Your task to perform on an android device: turn vacation reply on in the gmail app Image 0: 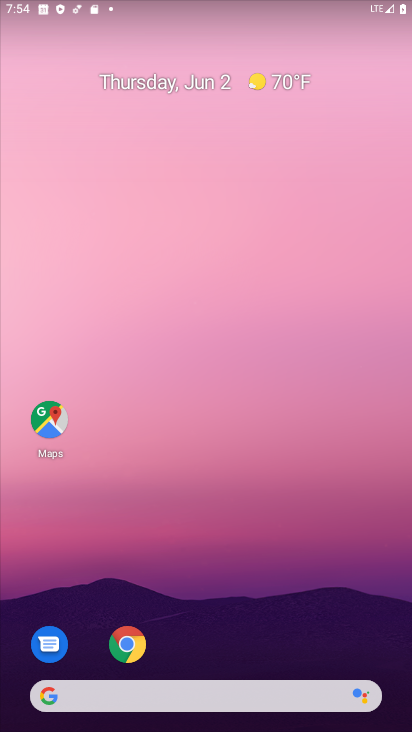
Step 0: drag from (313, 583) to (229, 43)
Your task to perform on an android device: turn vacation reply on in the gmail app Image 1: 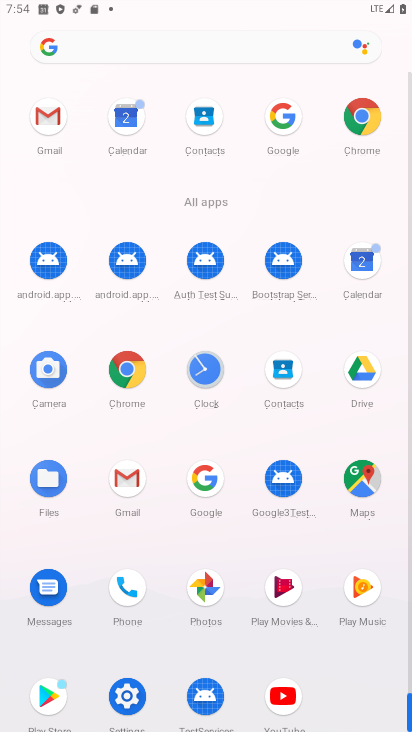
Step 1: drag from (2, 582) to (4, 327)
Your task to perform on an android device: turn vacation reply on in the gmail app Image 2: 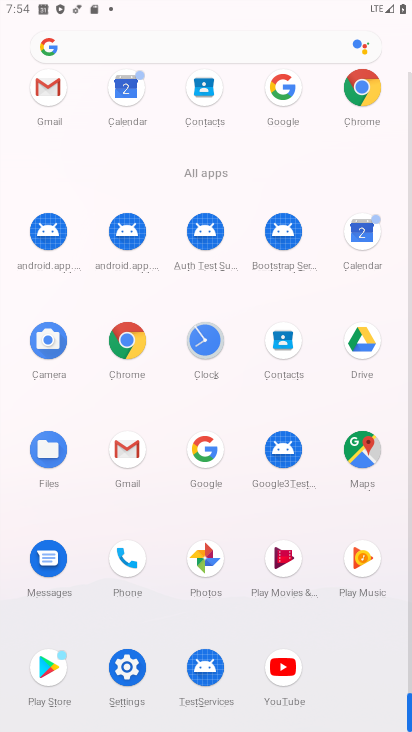
Step 2: click (125, 446)
Your task to perform on an android device: turn vacation reply on in the gmail app Image 3: 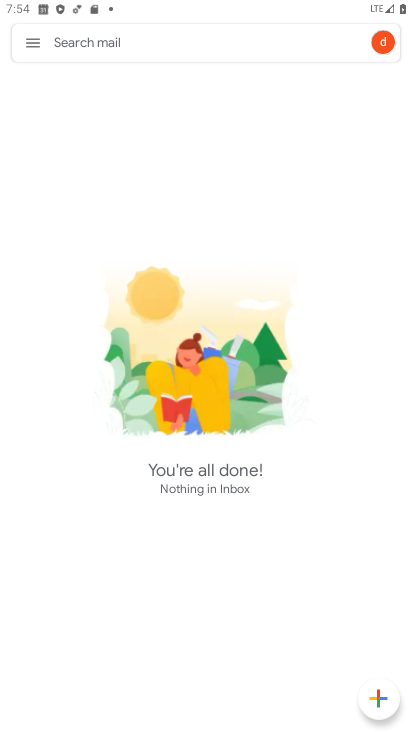
Step 3: click (22, 35)
Your task to perform on an android device: turn vacation reply on in the gmail app Image 4: 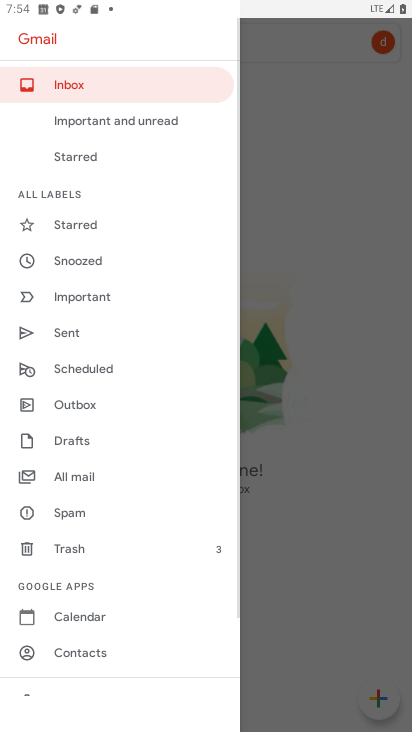
Step 4: drag from (123, 590) to (145, 217)
Your task to perform on an android device: turn vacation reply on in the gmail app Image 5: 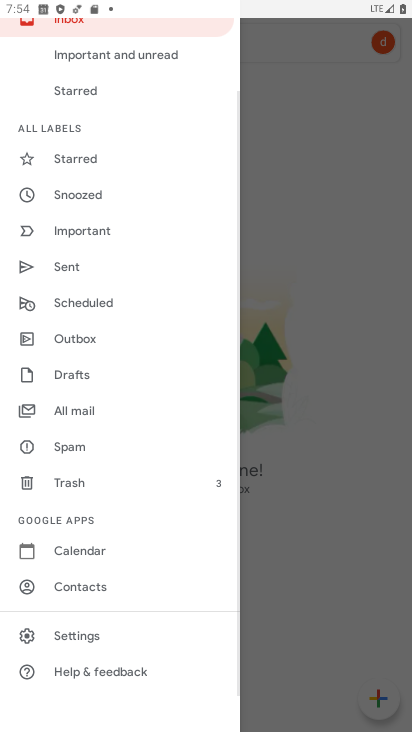
Step 5: click (76, 633)
Your task to perform on an android device: turn vacation reply on in the gmail app Image 6: 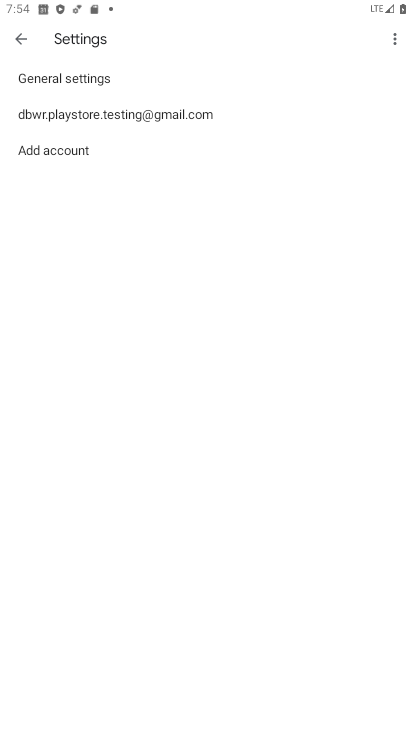
Step 6: click (138, 113)
Your task to perform on an android device: turn vacation reply on in the gmail app Image 7: 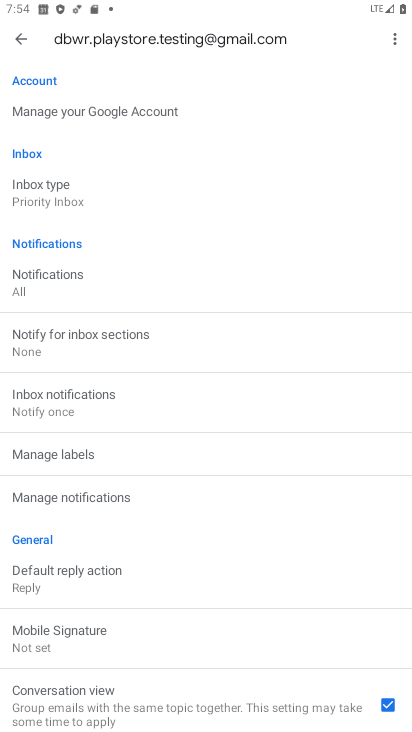
Step 7: drag from (192, 290) to (206, 136)
Your task to perform on an android device: turn vacation reply on in the gmail app Image 8: 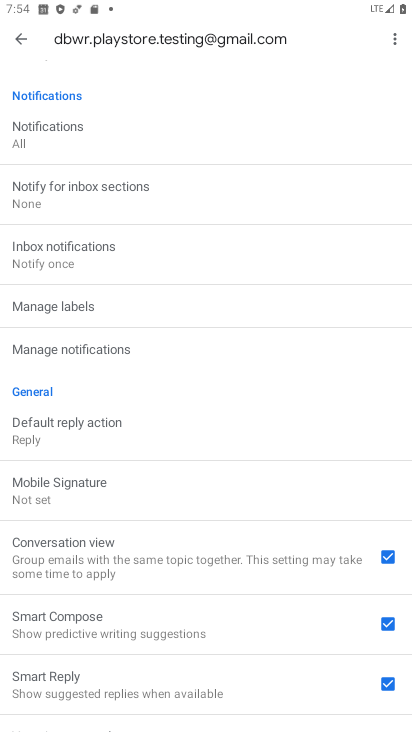
Step 8: drag from (209, 98) to (174, 583)
Your task to perform on an android device: turn vacation reply on in the gmail app Image 9: 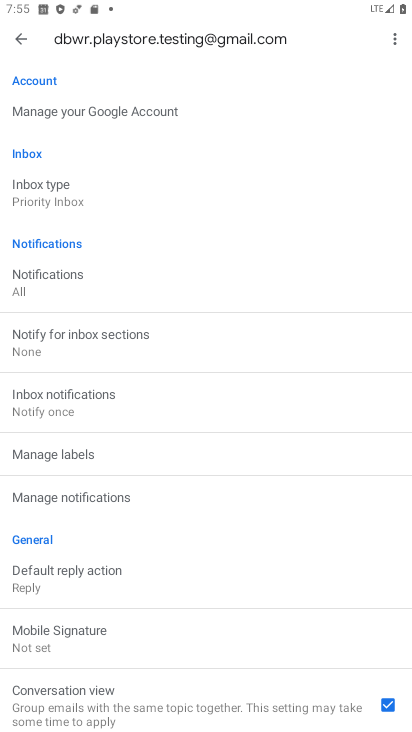
Step 9: drag from (154, 543) to (210, 215)
Your task to perform on an android device: turn vacation reply on in the gmail app Image 10: 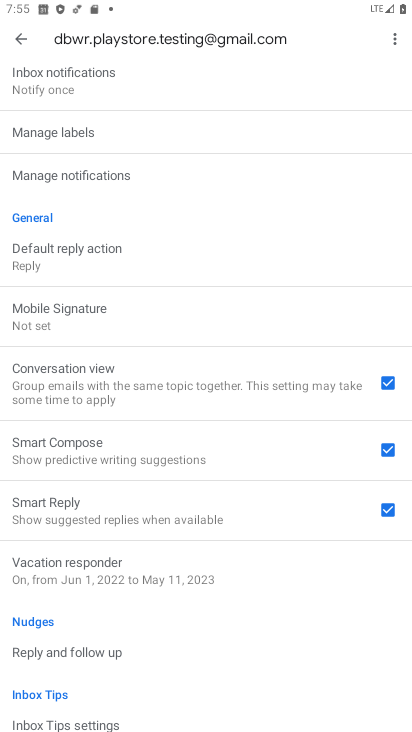
Step 10: click (139, 573)
Your task to perform on an android device: turn vacation reply on in the gmail app Image 11: 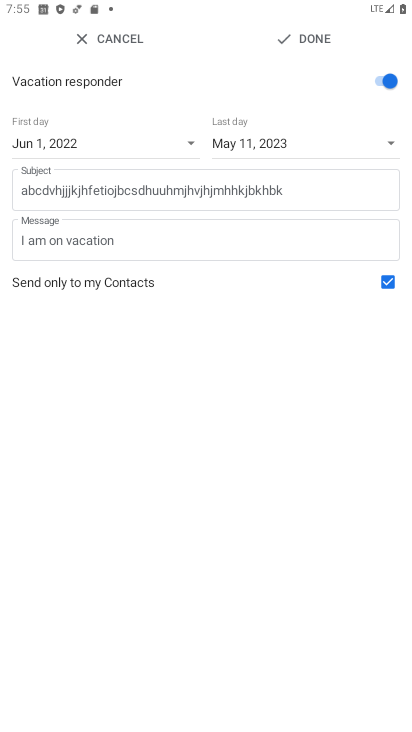
Step 11: click (306, 33)
Your task to perform on an android device: turn vacation reply on in the gmail app Image 12: 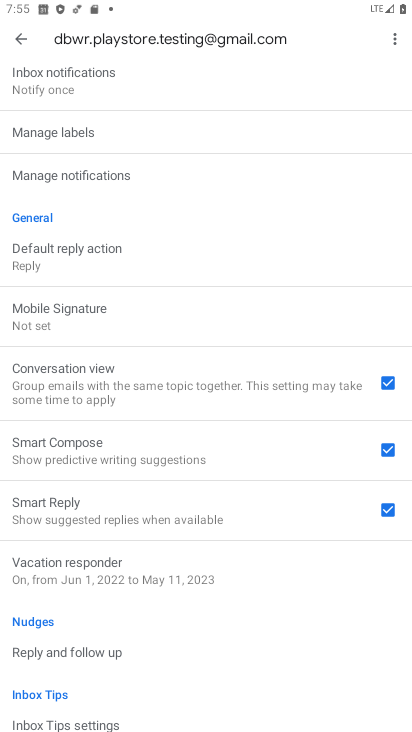
Step 12: task complete